Your task to perform on an android device: check storage Image 0: 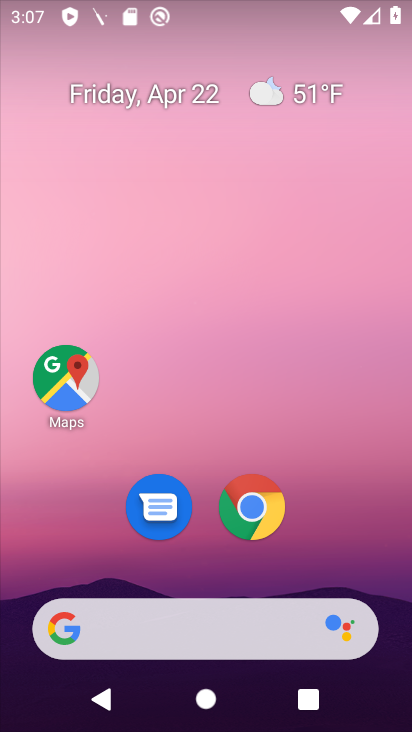
Step 0: press home button
Your task to perform on an android device: check storage Image 1: 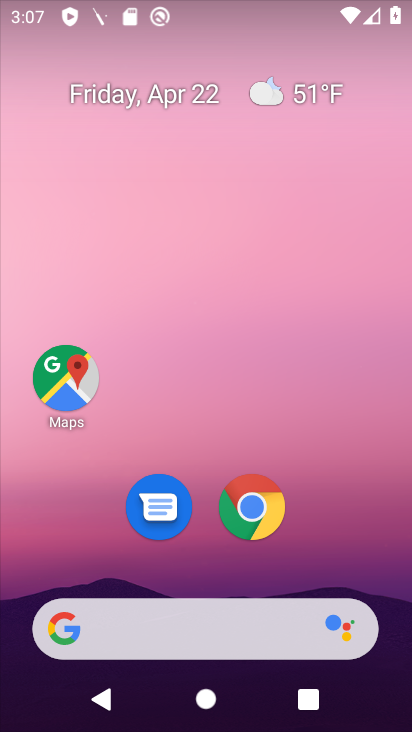
Step 1: drag from (143, 592) to (252, 109)
Your task to perform on an android device: check storage Image 2: 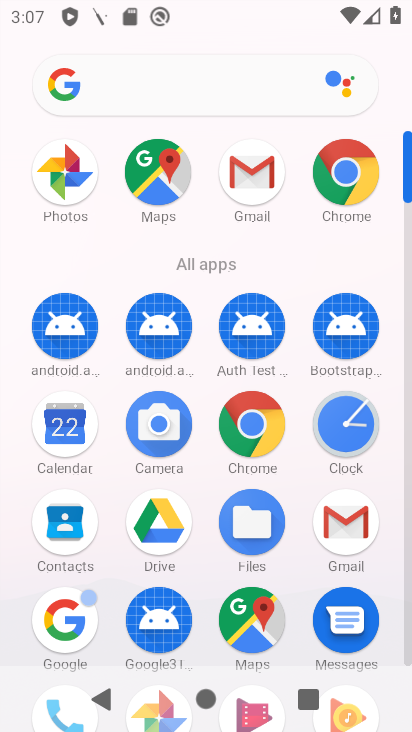
Step 2: drag from (196, 577) to (289, 239)
Your task to perform on an android device: check storage Image 3: 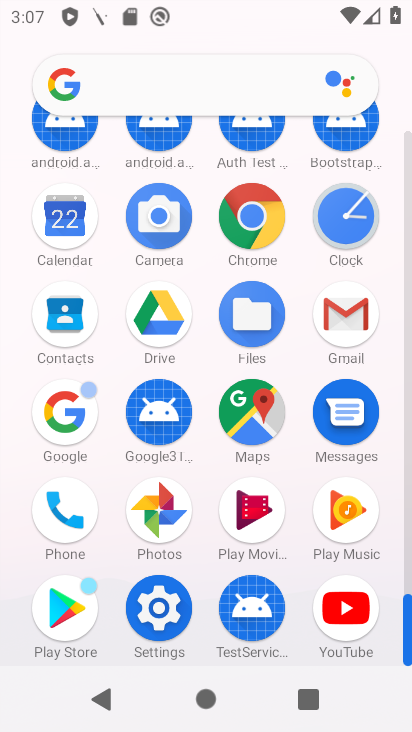
Step 3: click (155, 603)
Your task to perform on an android device: check storage Image 4: 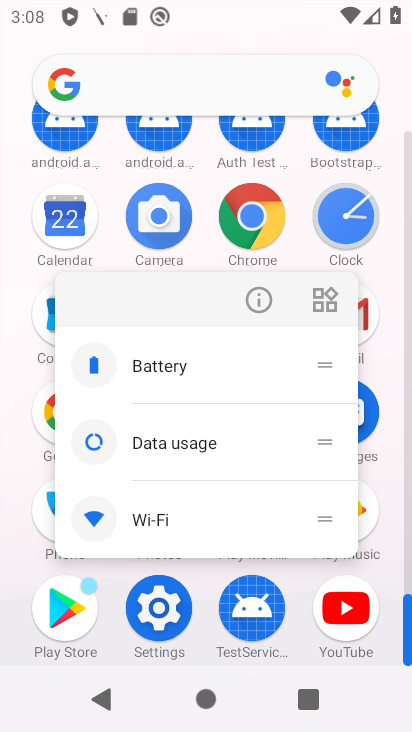
Step 4: click (150, 610)
Your task to perform on an android device: check storage Image 5: 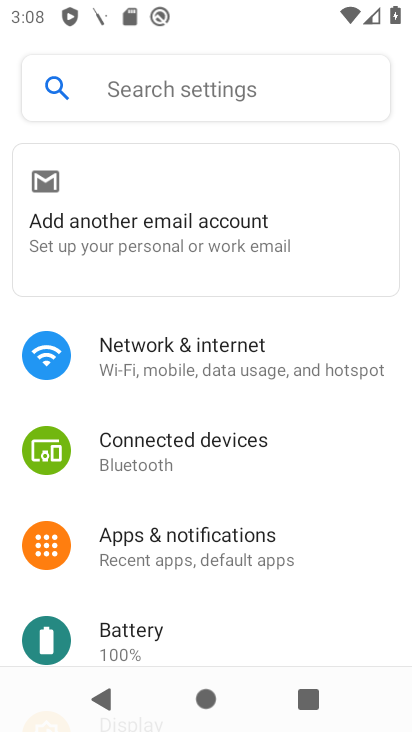
Step 5: drag from (201, 618) to (323, 199)
Your task to perform on an android device: check storage Image 6: 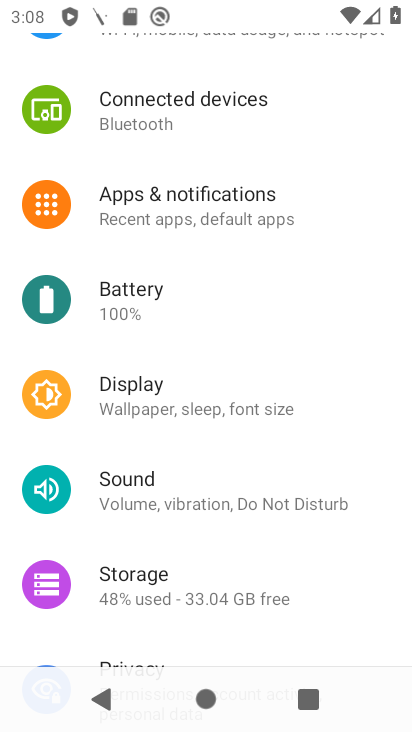
Step 6: click (147, 583)
Your task to perform on an android device: check storage Image 7: 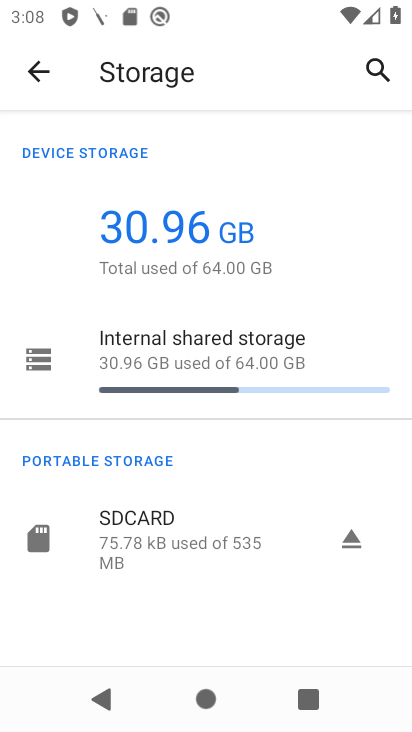
Step 7: task complete